Your task to perform on an android device: What's the news in Laos? Image 0: 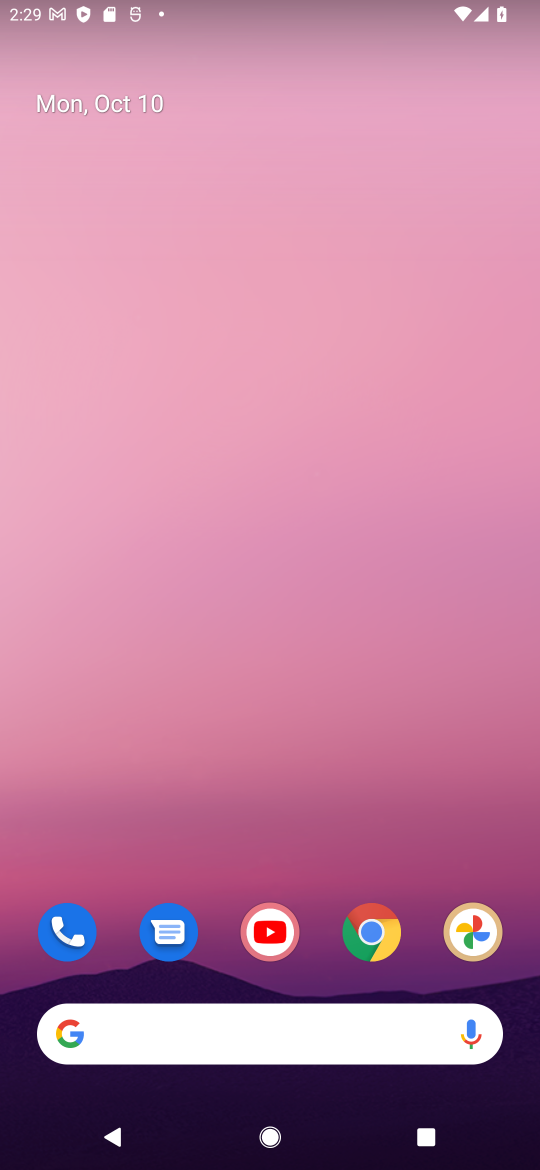
Step 0: press home button
Your task to perform on an android device: What's the news in Laos? Image 1: 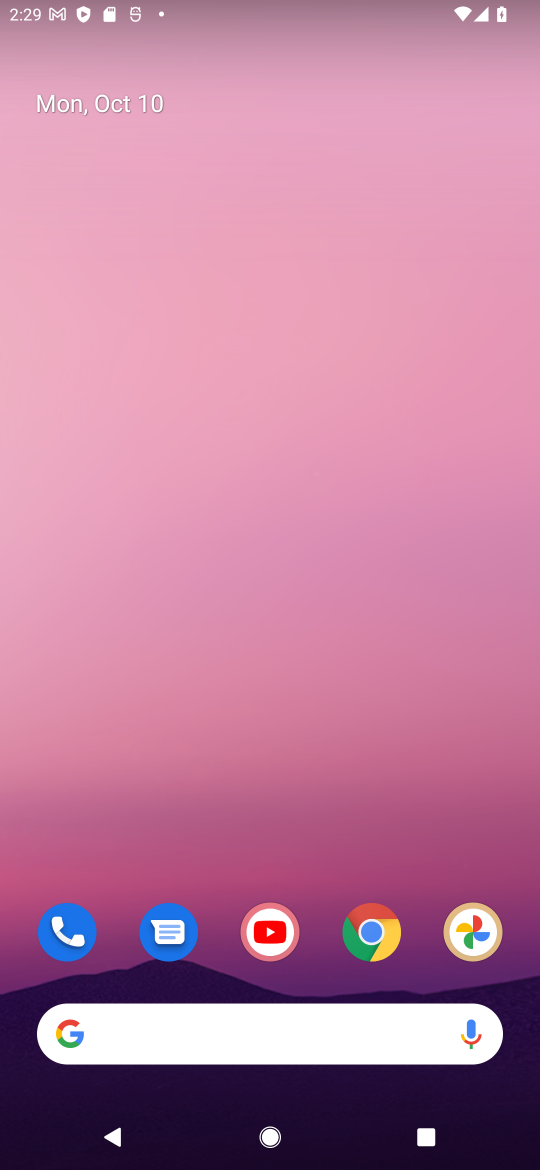
Step 1: click (255, 1037)
Your task to perform on an android device: What's the news in Laos? Image 2: 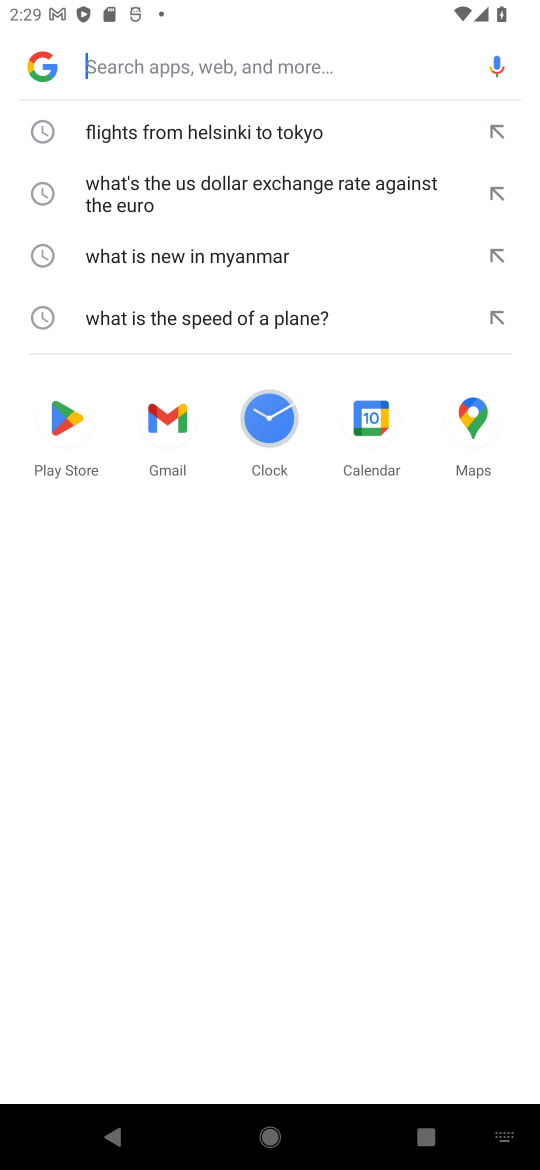
Step 2: type "What's the news in Laos"
Your task to perform on an android device: What's the news in Laos? Image 3: 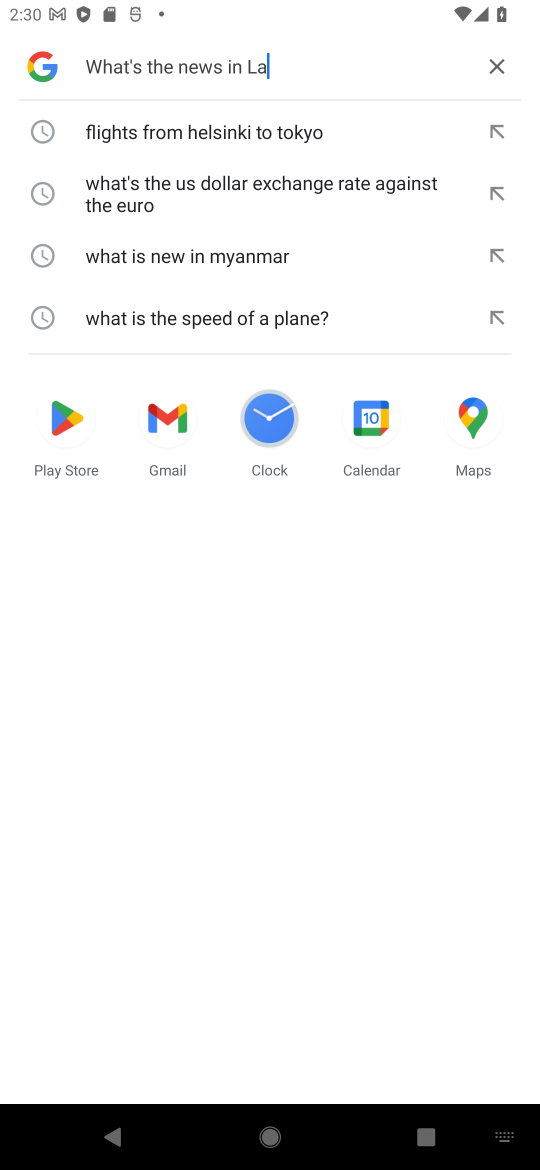
Step 3: press enter
Your task to perform on an android device: What's the news in Laos? Image 4: 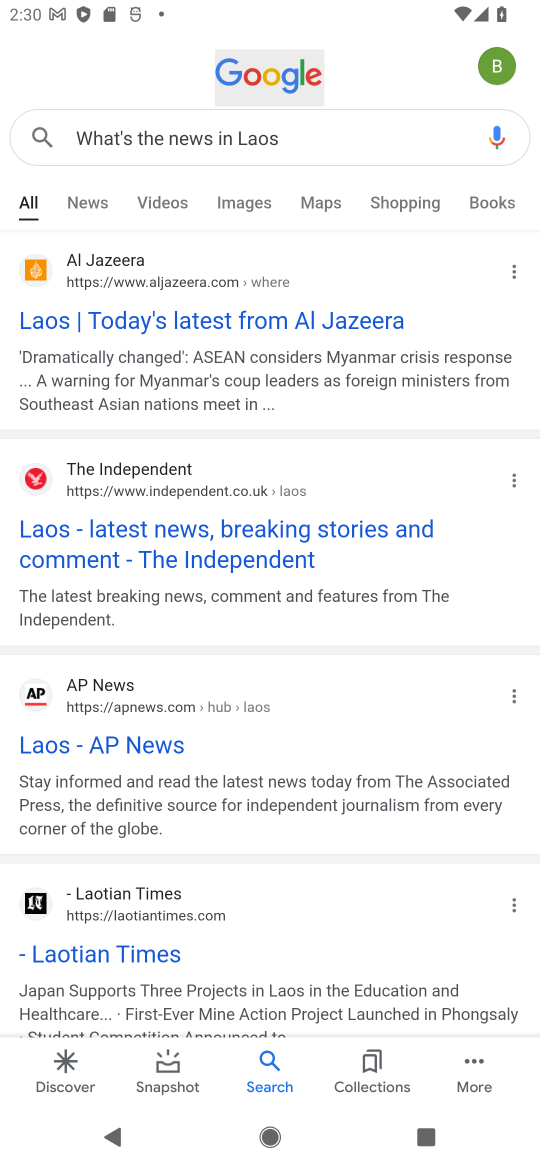
Step 4: click (248, 542)
Your task to perform on an android device: What's the news in Laos? Image 5: 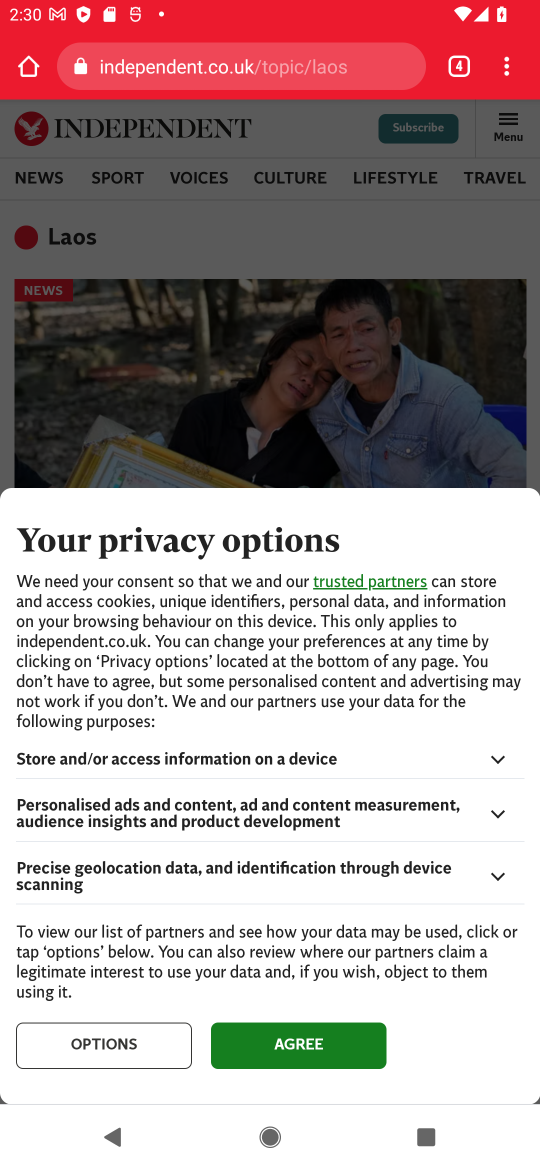
Step 5: click (287, 1037)
Your task to perform on an android device: What's the news in Laos? Image 6: 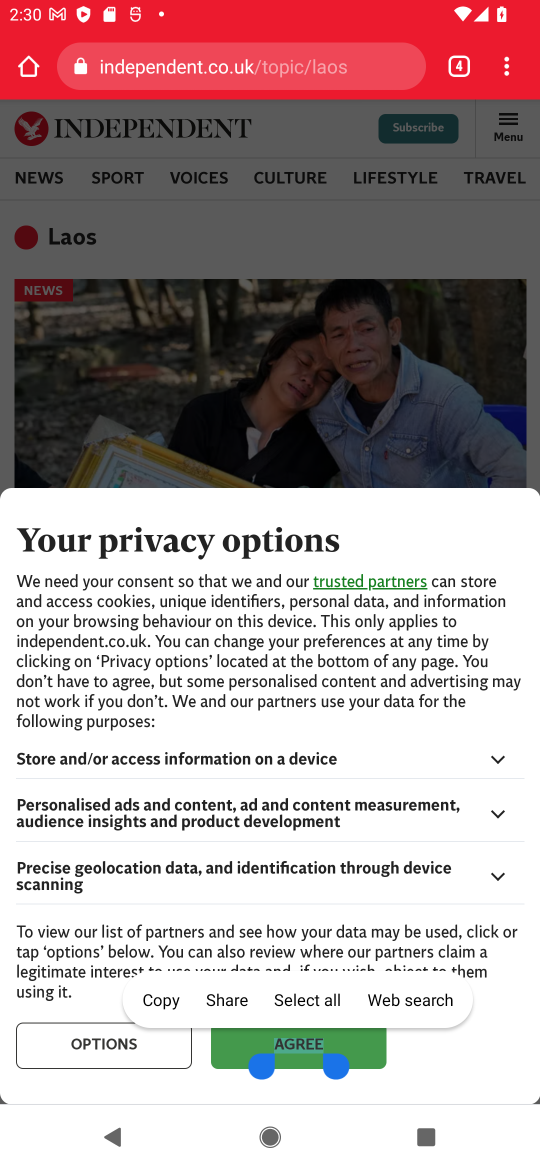
Step 6: click (276, 1044)
Your task to perform on an android device: What's the news in Laos? Image 7: 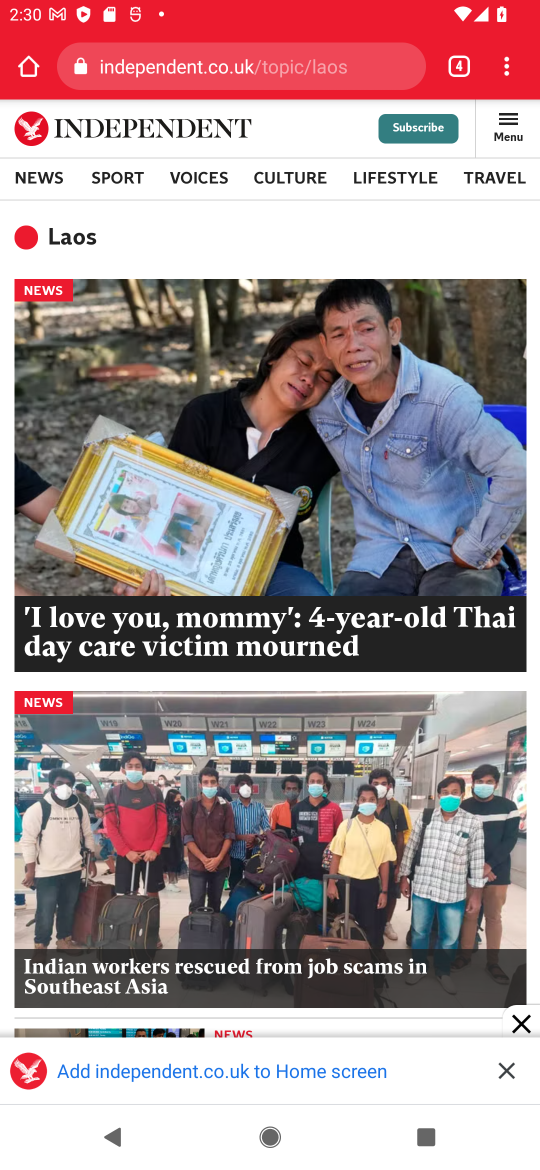
Step 7: drag from (471, 859) to (435, 527)
Your task to perform on an android device: What's the news in Laos? Image 8: 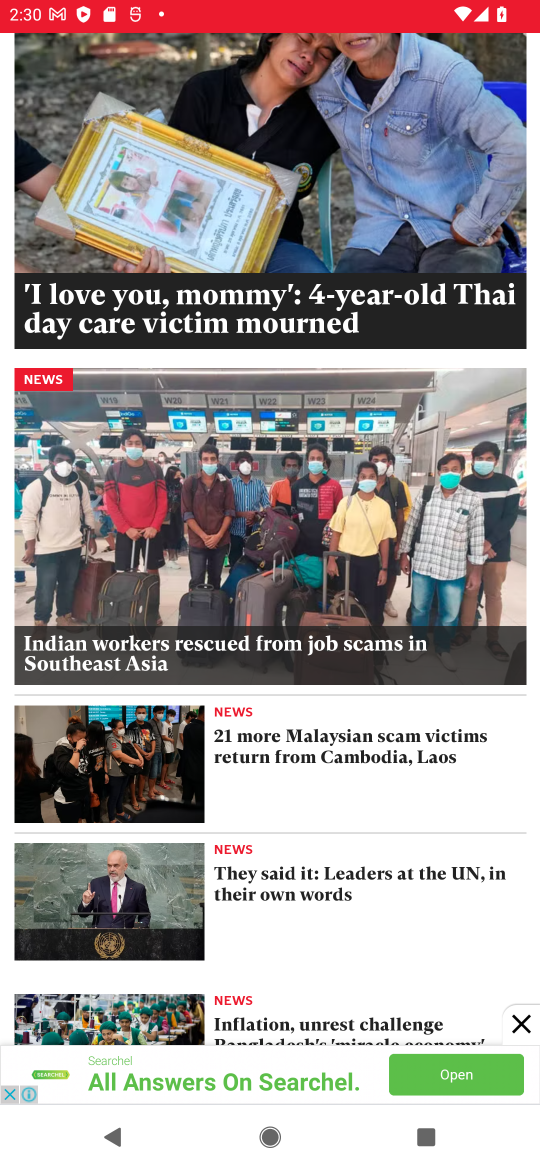
Step 8: click (517, 1028)
Your task to perform on an android device: What's the news in Laos? Image 9: 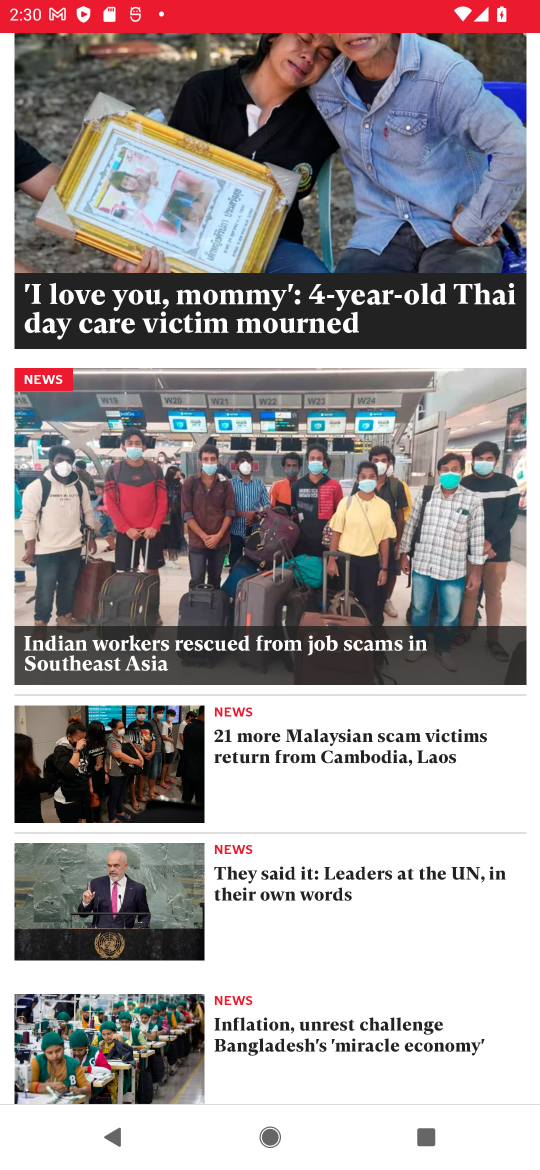
Step 9: task complete